Your task to perform on an android device: Open privacy settings Image 0: 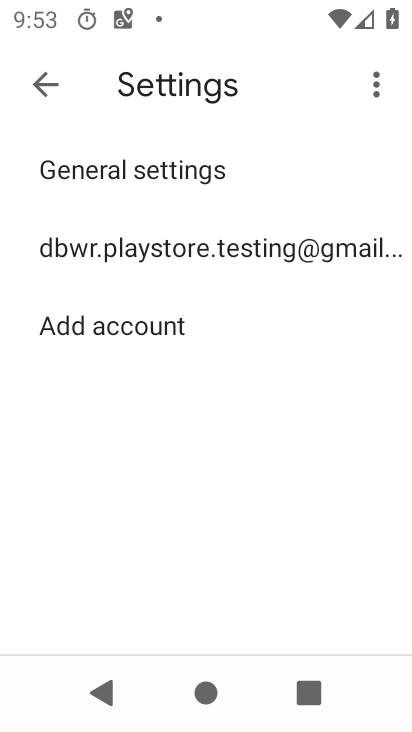
Step 0: press home button
Your task to perform on an android device: Open privacy settings Image 1: 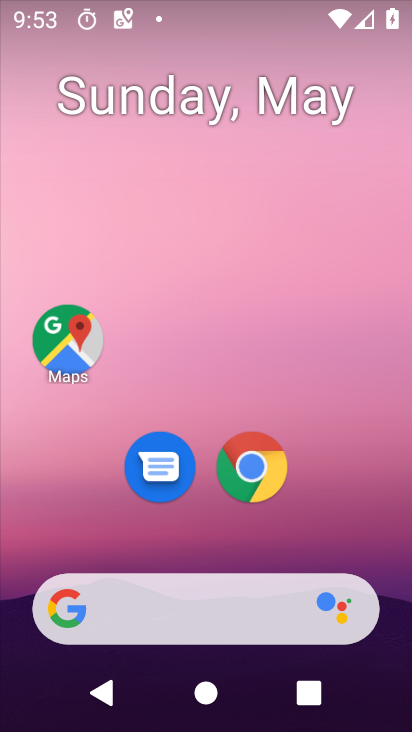
Step 1: drag from (196, 544) to (207, 238)
Your task to perform on an android device: Open privacy settings Image 2: 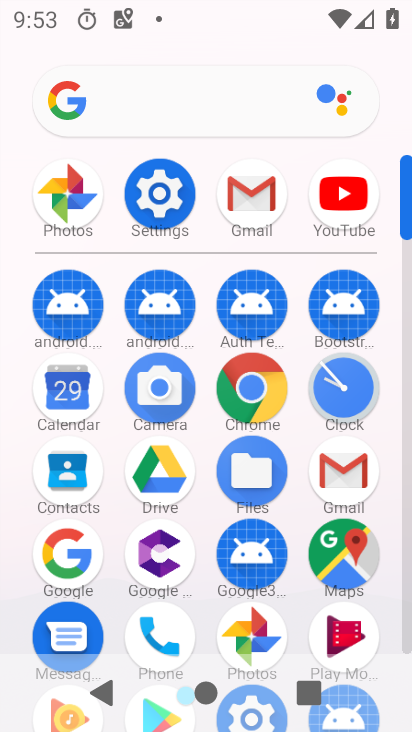
Step 2: click (163, 168)
Your task to perform on an android device: Open privacy settings Image 3: 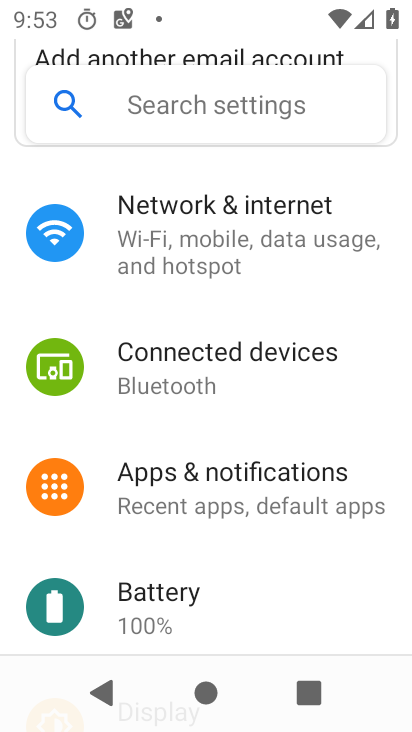
Step 3: drag from (219, 564) to (237, 227)
Your task to perform on an android device: Open privacy settings Image 4: 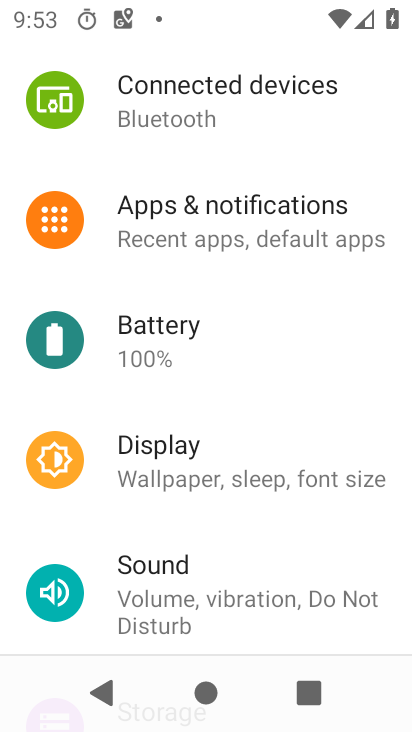
Step 4: drag from (243, 554) to (247, 213)
Your task to perform on an android device: Open privacy settings Image 5: 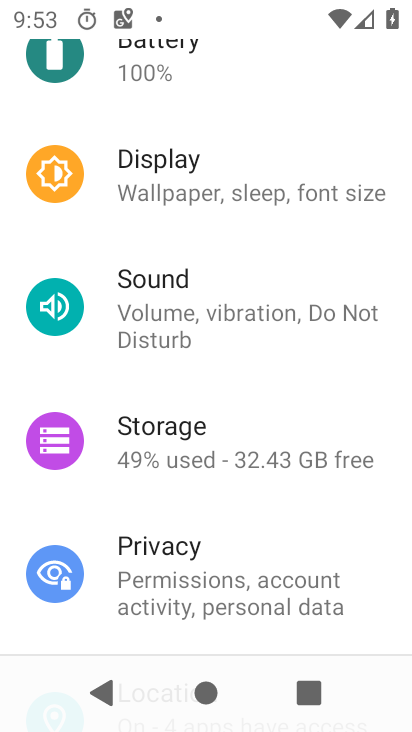
Step 5: click (196, 545)
Your task to perform on an android device: Open privacy settings Image 6: 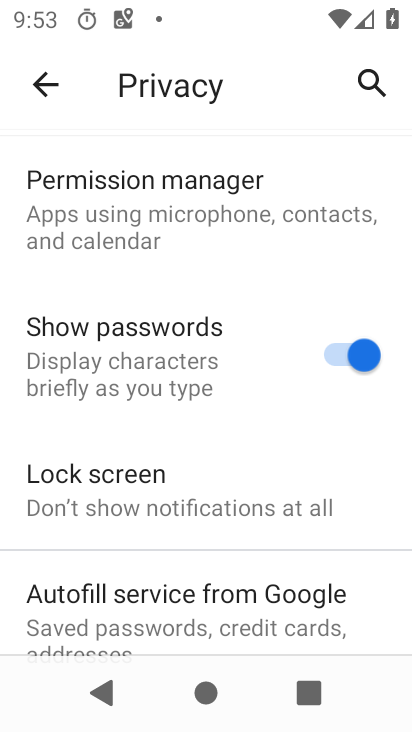
Step 6: task complete